Your task to perform on an android device: Search for a custom made wallet Image 0: 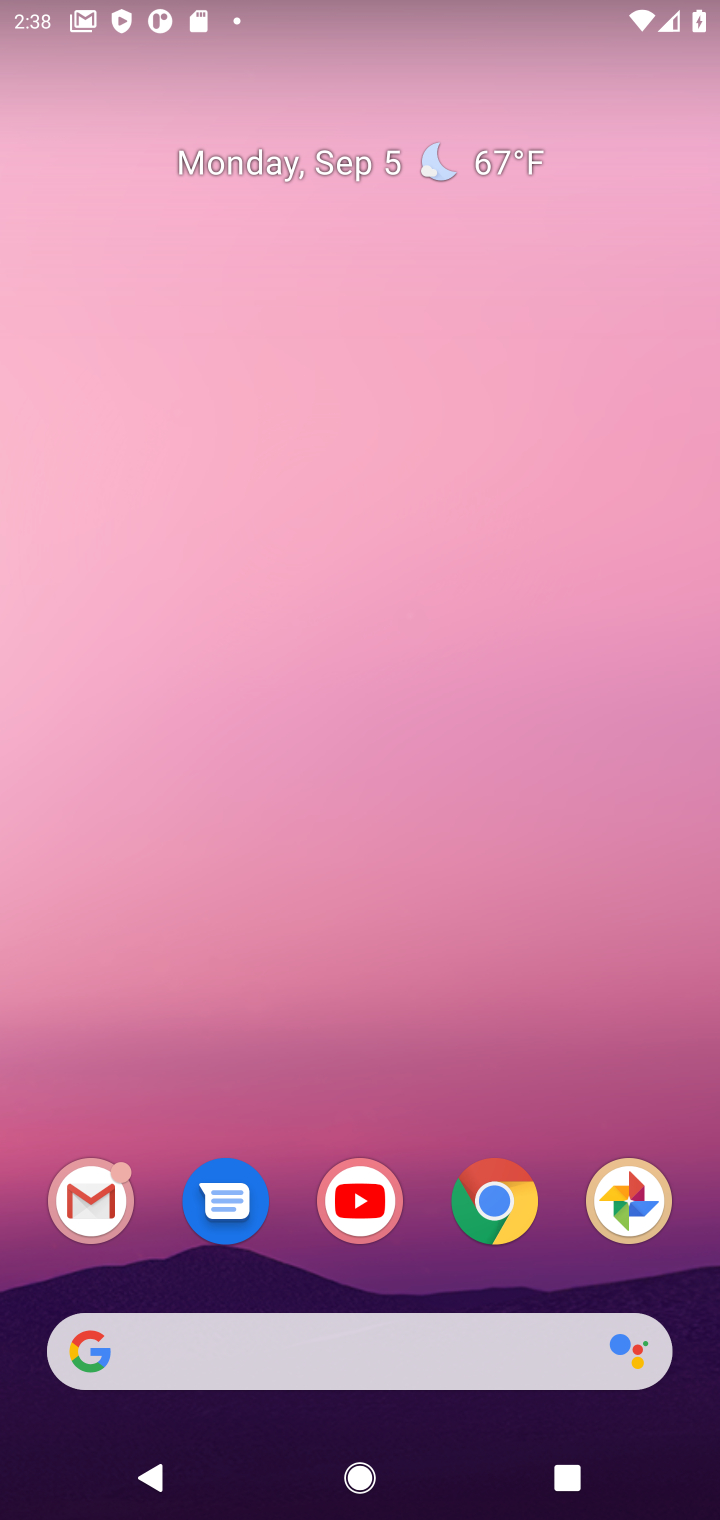
Step 0: click (504, 1216)
Your task to perform on an android device: Search for a custom made wallet Image 1: 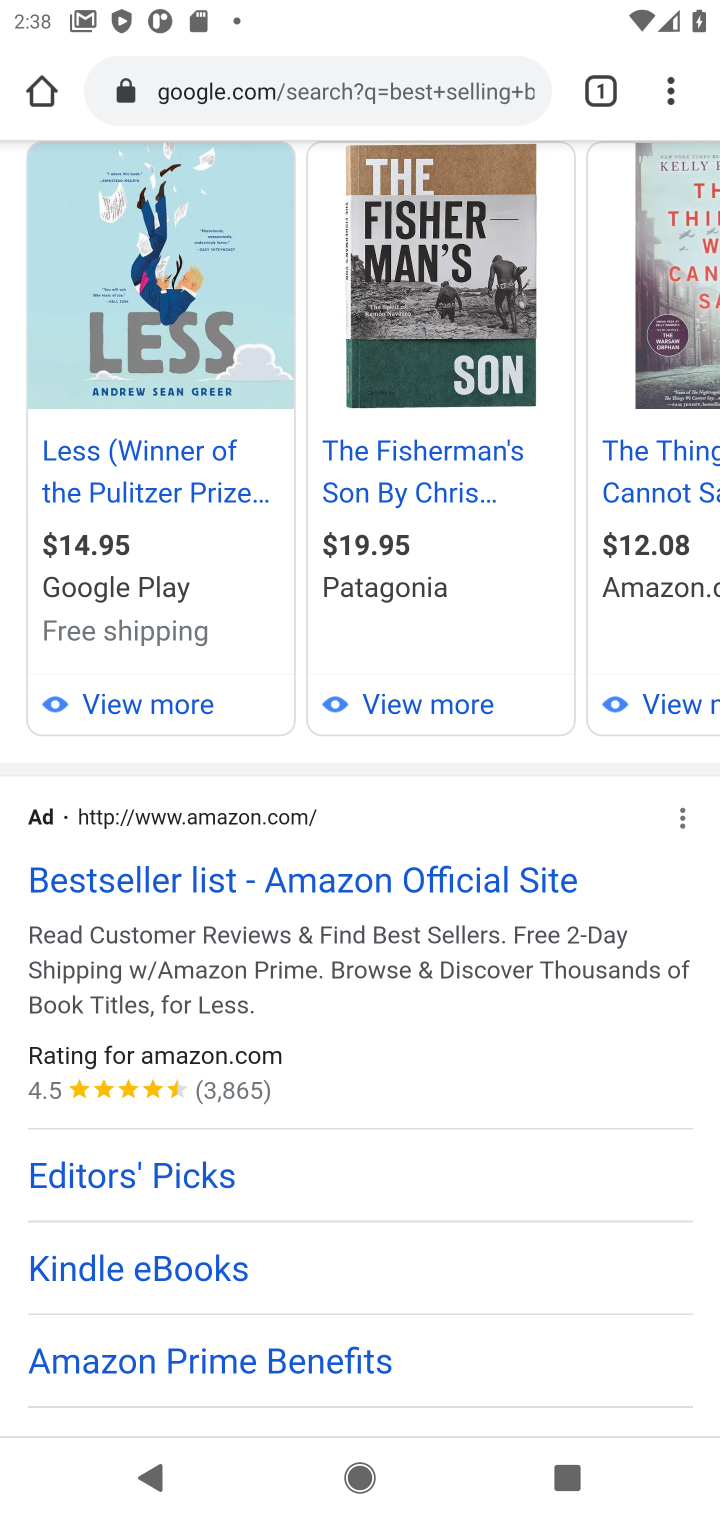
Step 1: click (348, 96)
Your task to perform on an android device: Search for a custom made wallet Image 2: 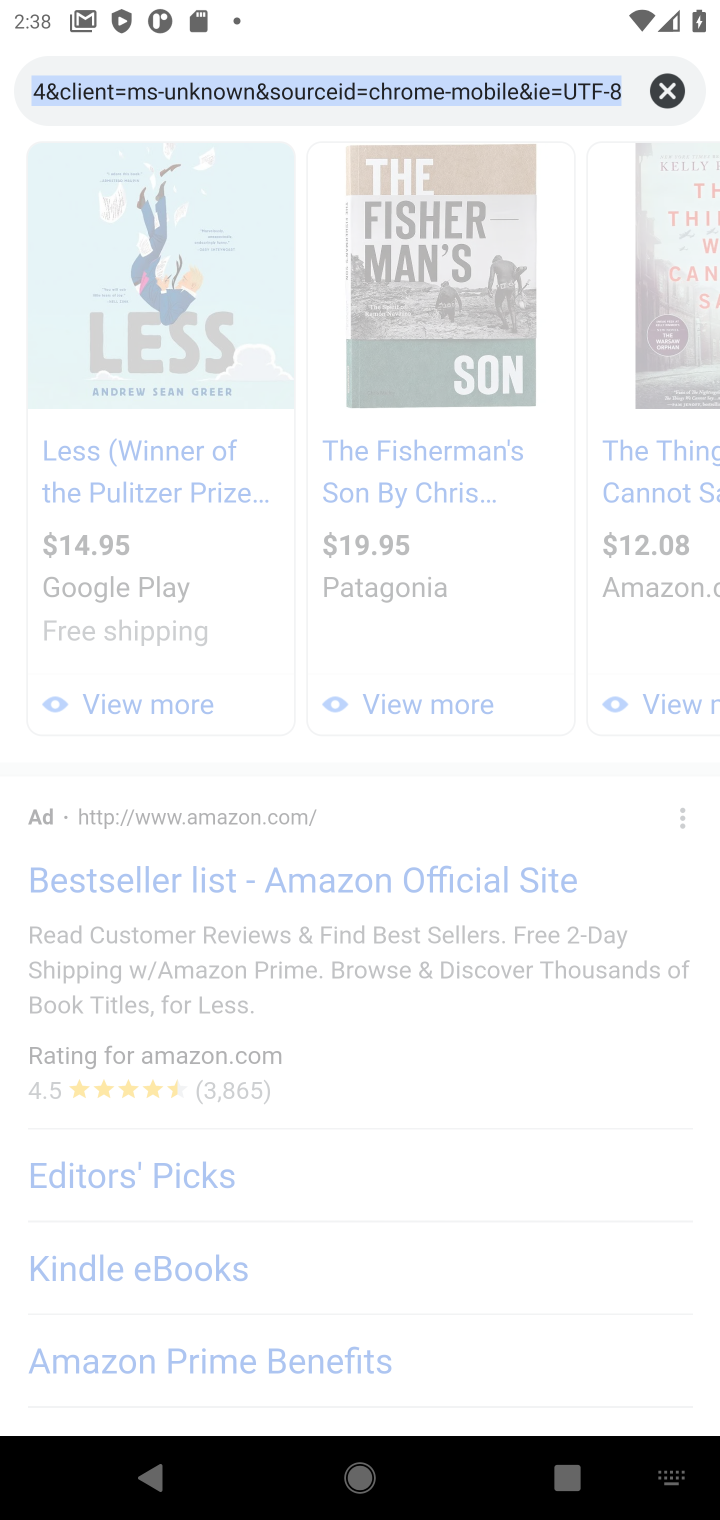
Step 2: click (667, 74)
Your task to perform on an android device: Search for a custom made wallet Image 3: 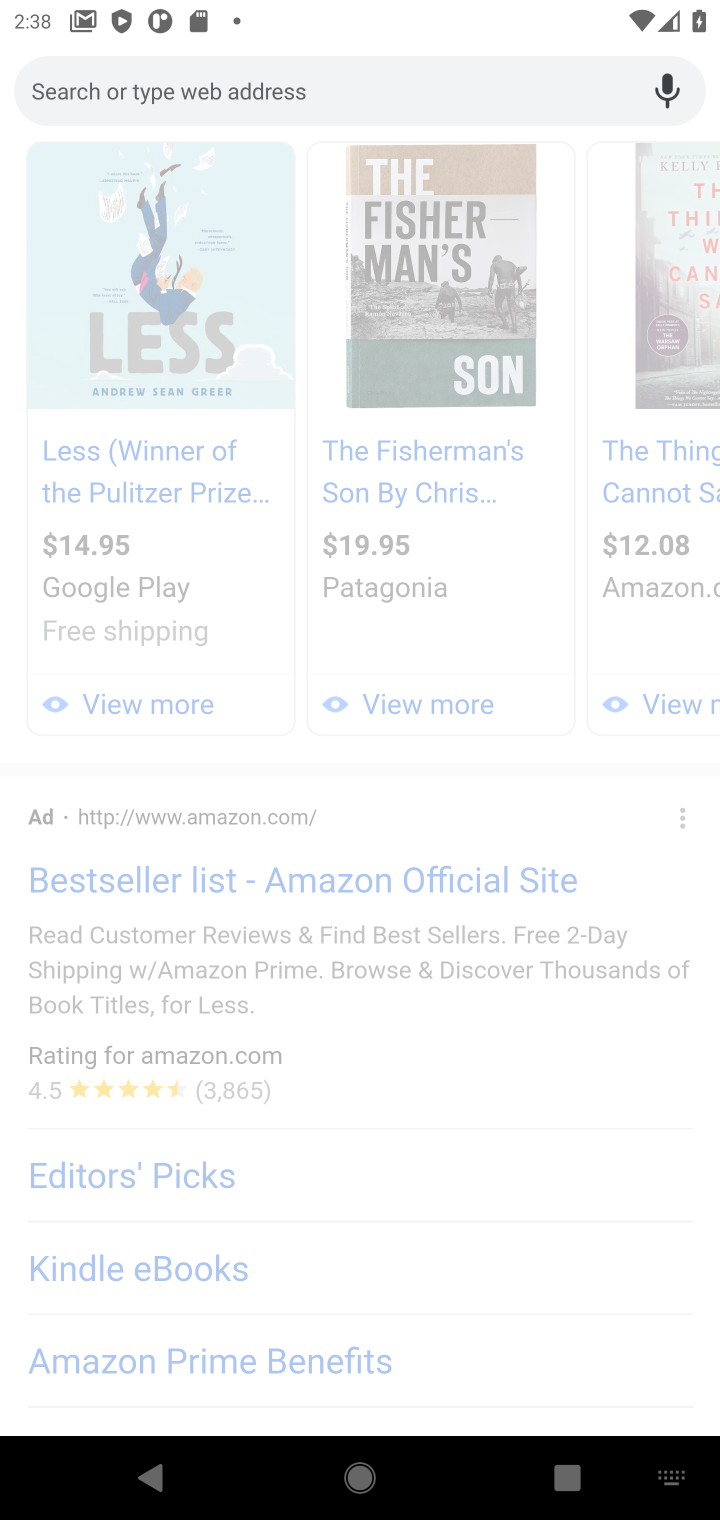
Step 3: click (436, 85)
Your task to perform on an android device: Search for a custom made wallet Image 4: 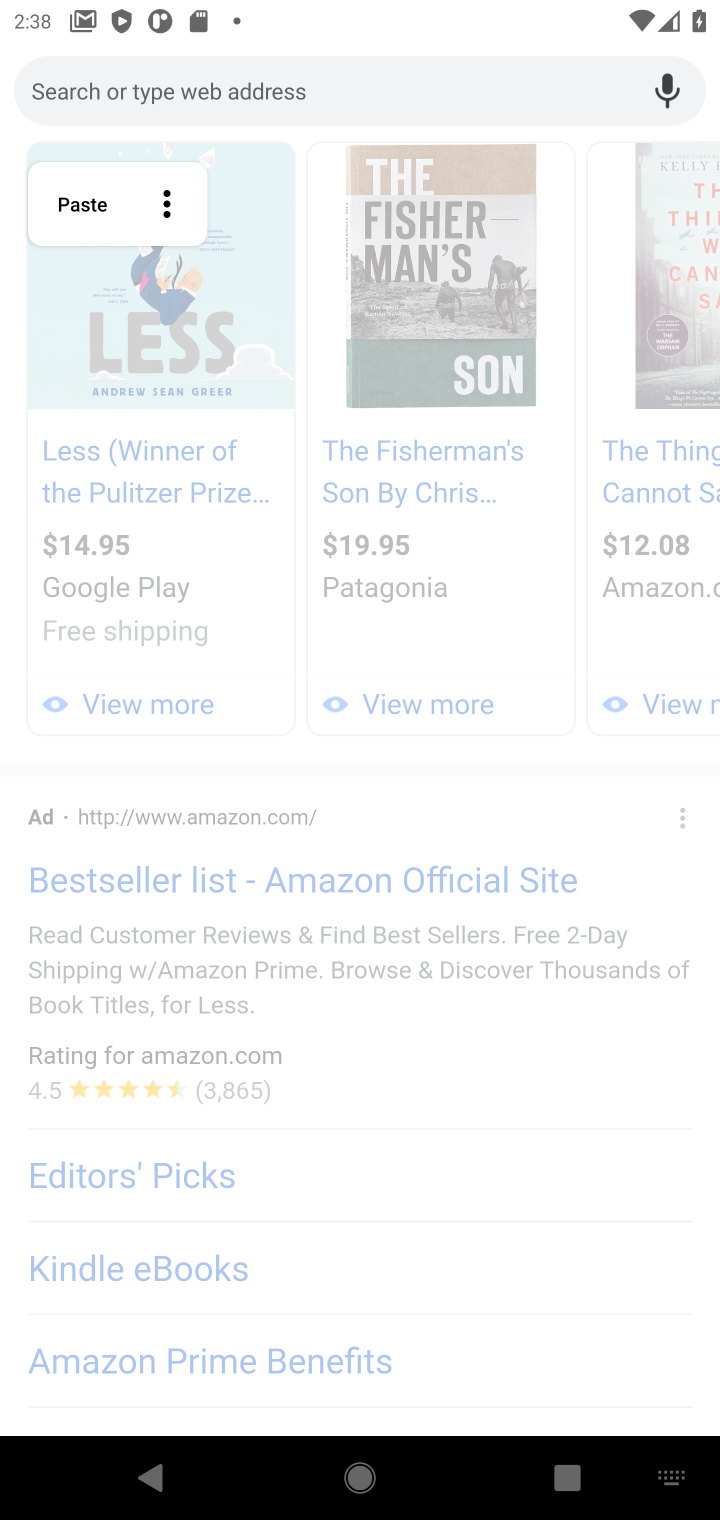
Step 4: type " custom made wallet"
Your task to perform on an android device: Search for a custom made wallet Image 5: 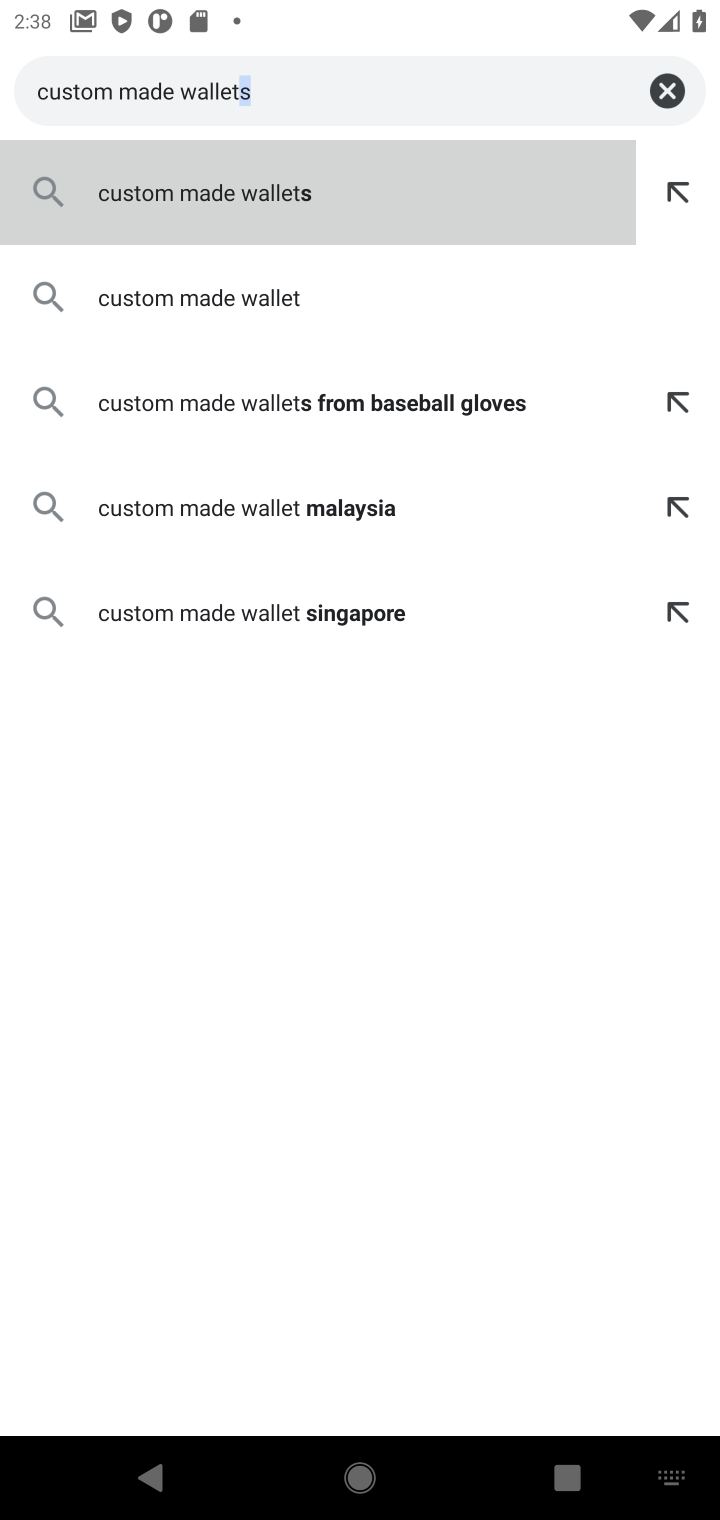
Step 5: press enter
Your task to perform on an android device: Search for a custom made wallet Image 6: 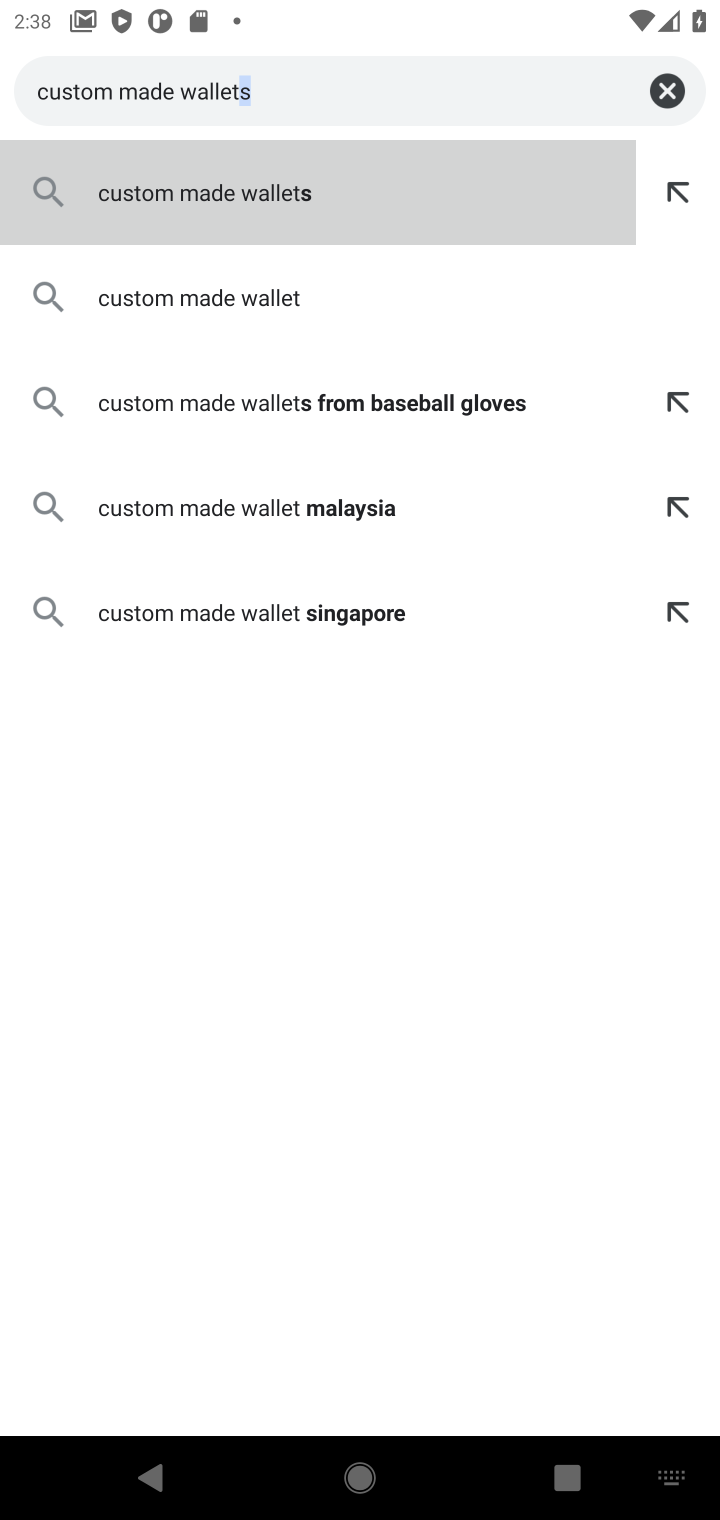
Step 6: click (172, 183)
Your task to perform on an android device: Search for a custom made wallet Image 7: 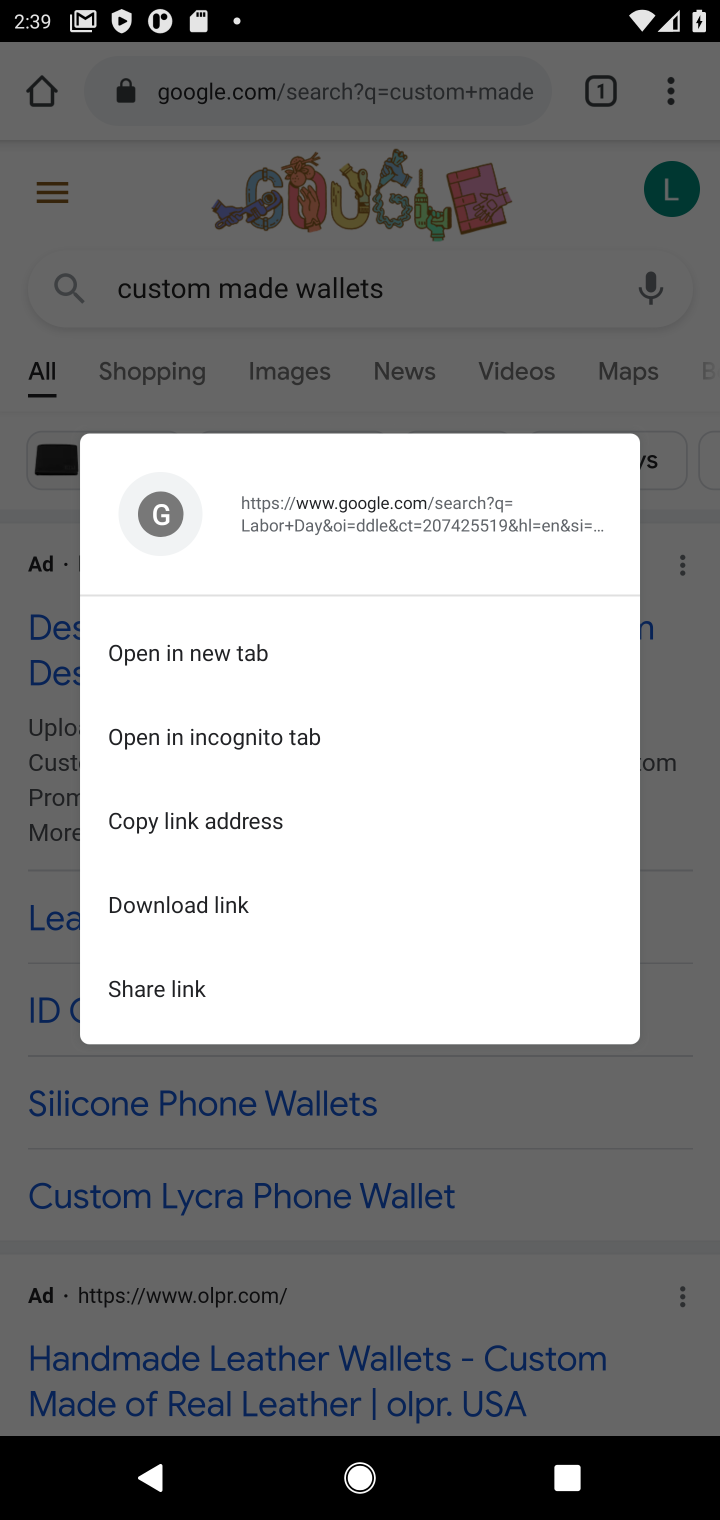
Step 7: click (674, 1096)
Your task to perform on an android device: Search for a custom made wallet Image 8: 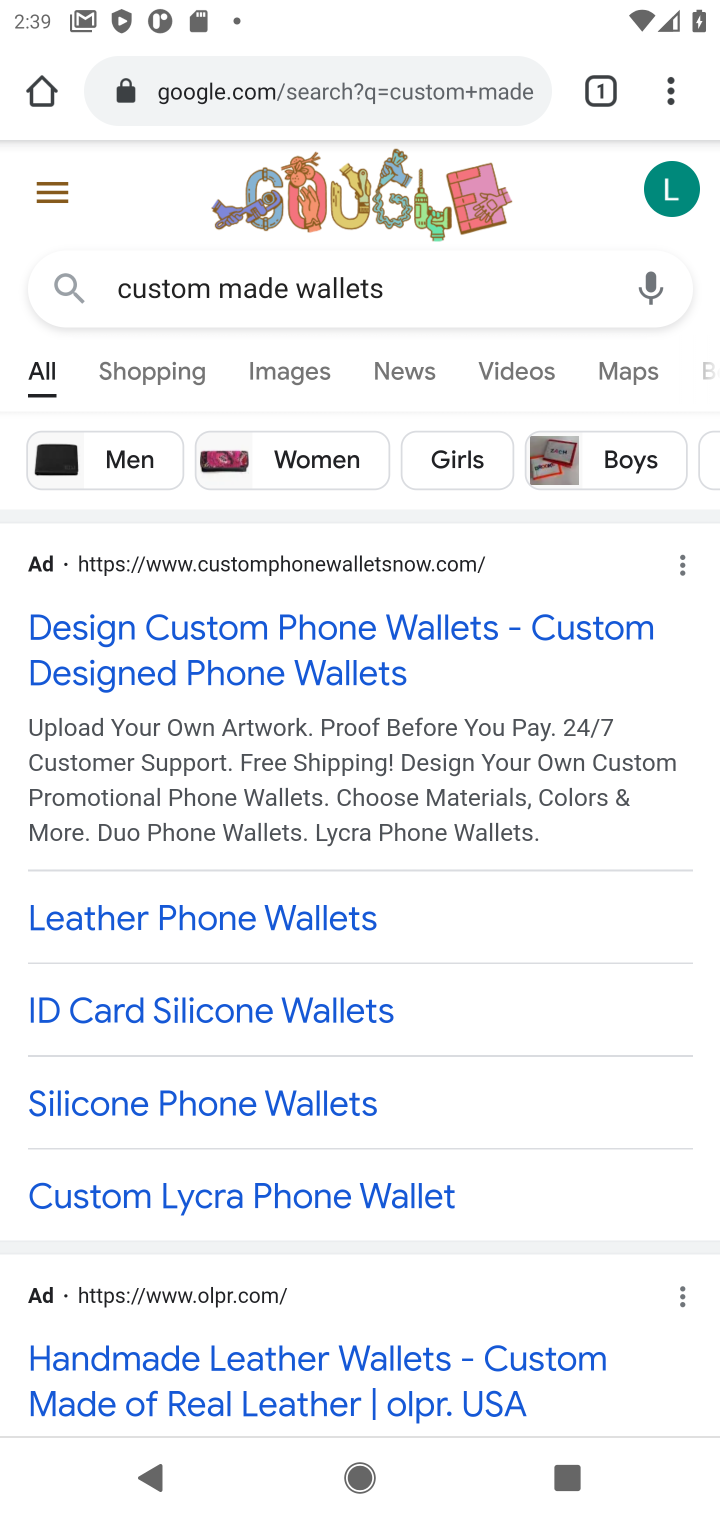
Step 8: task complete